Your task to perform on an android device: What is the recent news? Image 0: 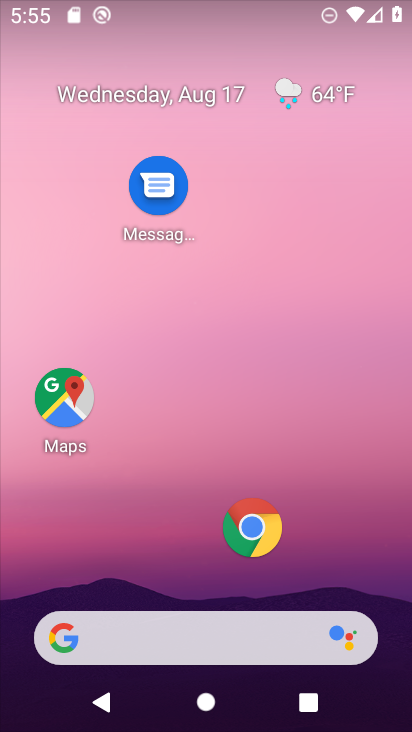
Step 0: drag from (194, 546) to (240, 174)
Your task to perform on an android device: What is the recent news? Image 1: 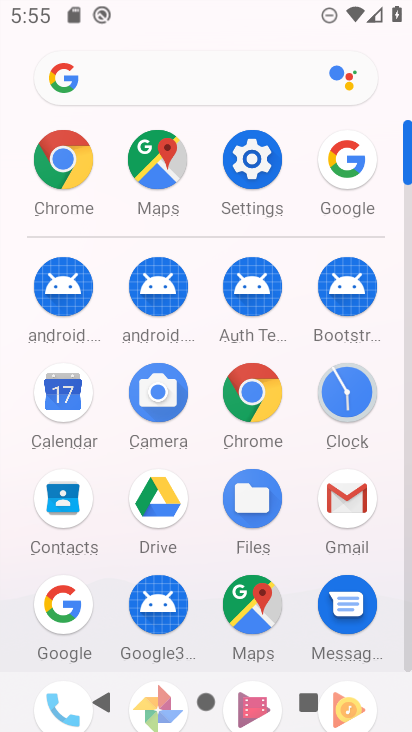
Step 1: click (51, 606)
Your task to perform on an android device: What is the recent news? Image 2: 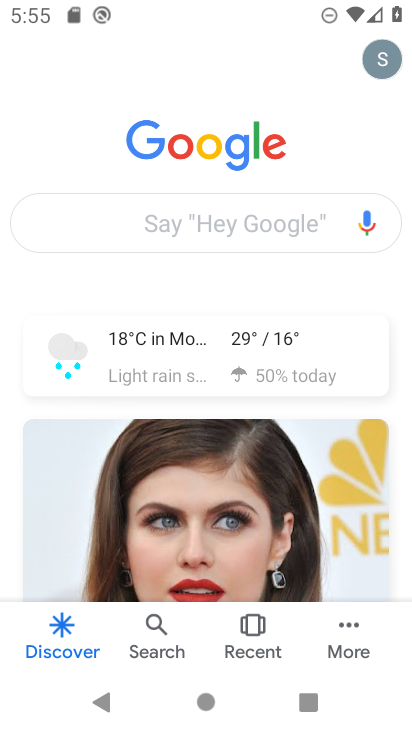
Step 2: click (207, 235)
Your task to perform on an android device: What is the recent news? Image 3: 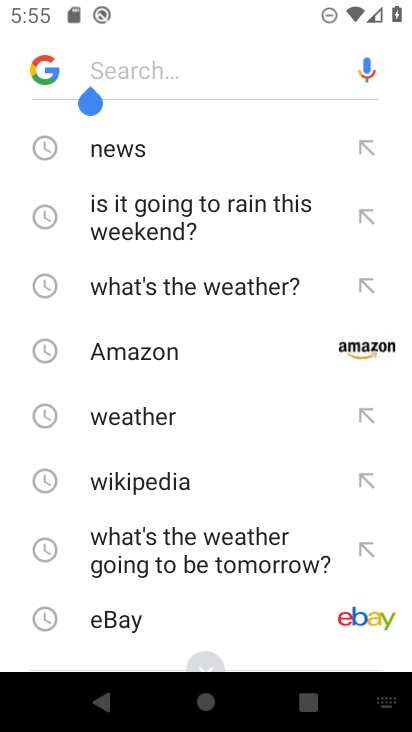
Step 3: drag from (122, 589) to (160, 251)
Your task to perform on an android device: What is the recent news? Image 4: 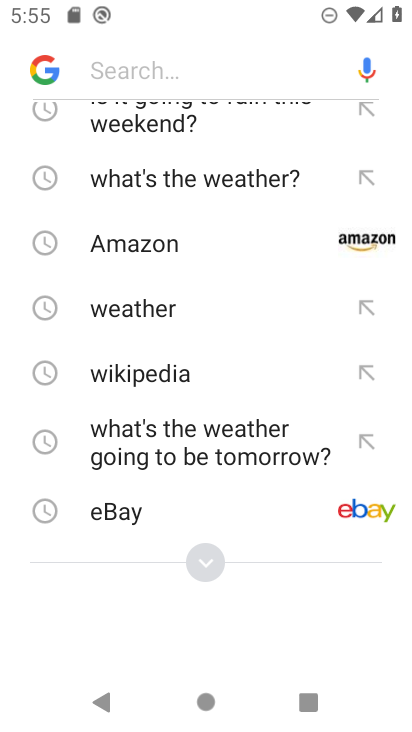
Step 4: click (203, 571)
Your task to perform on an android device: What is the recent news? Image 5: 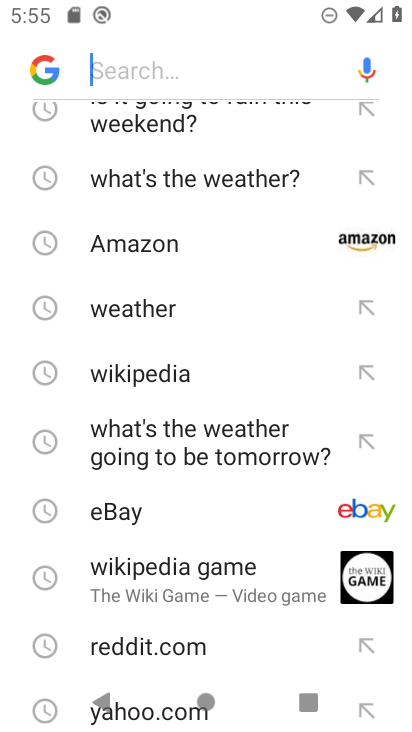
Step 5: drag from (160, 652) to (160, 327)
Your task to perform on an android device: What is the recent news? Image 6: 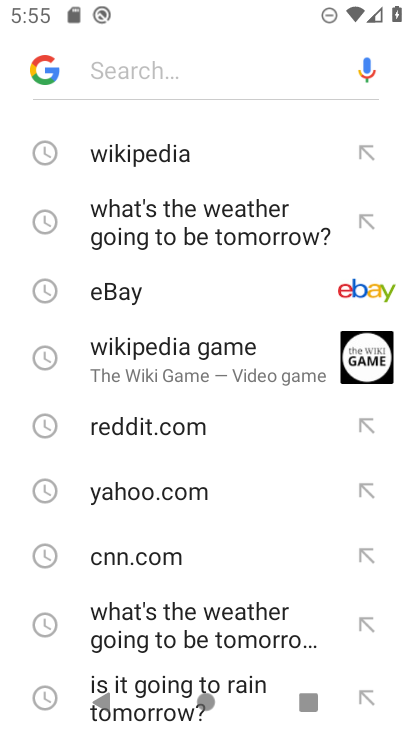
Step 6: drag from (150, 617) to (163, 384)
Your task to perform on an android device: What is the recent news? Image 7: 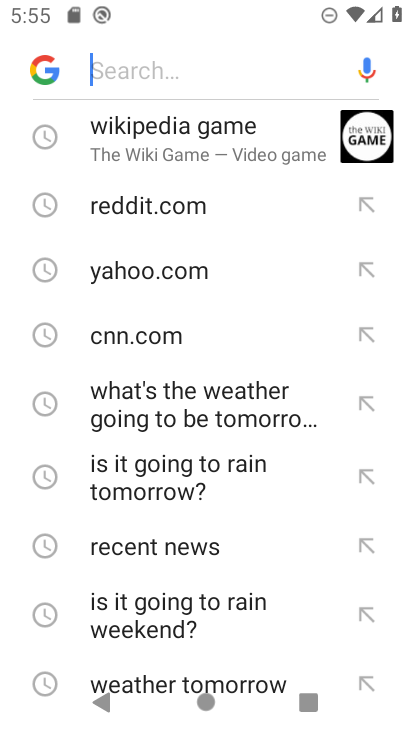
Step 7: click (164, 550)
Your task to perform on an android device: What is the recent news? Image 8: 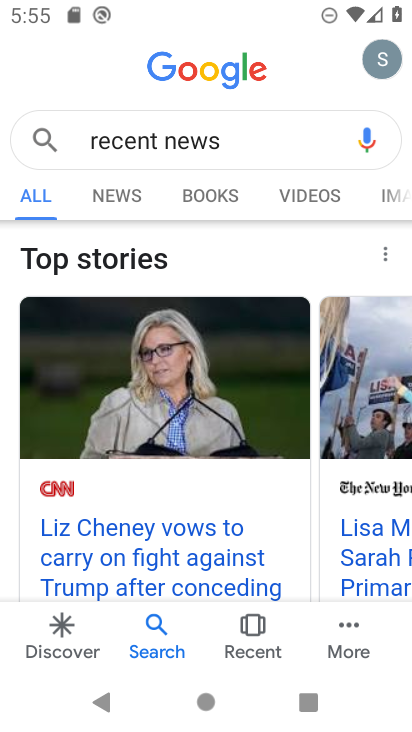
Step 8: task complete